Your task to perform on an android device: turn off location history Image 0: 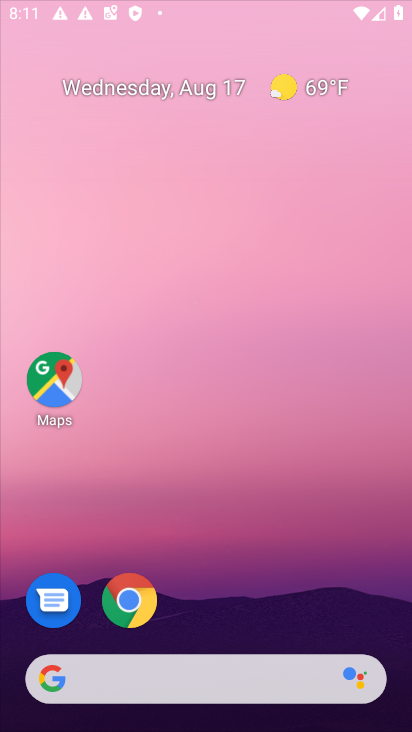
Step 0: press home button
Your task to perform on an android device: turn off location history Image 1: 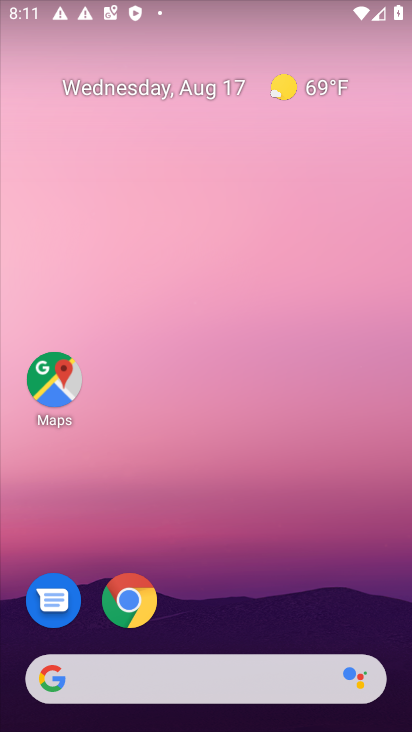
Step 1: drag from (216, 605) to (188, 95)
Your task to perform on an android device: turn off location history Image 2: 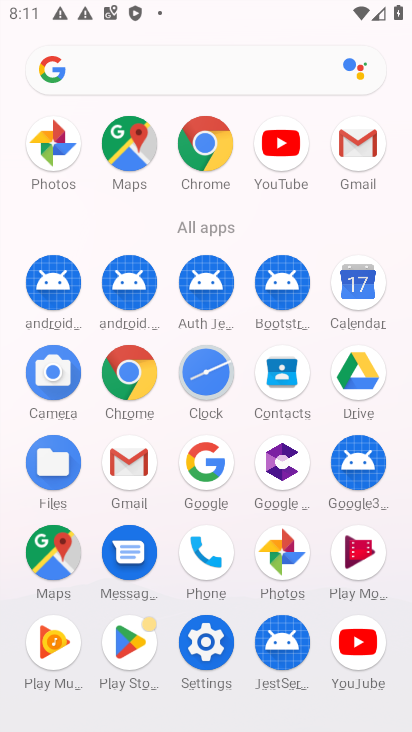
Step 2: click (204, 651)
Your task to perform on an android device: turn off location history Image 3: 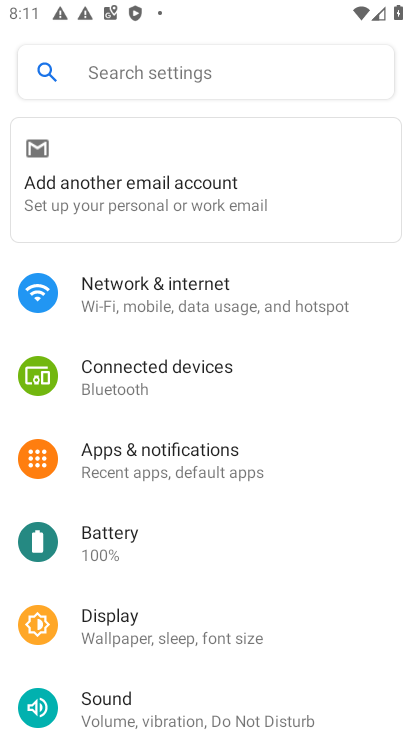
Step 3: drag from (149, 593) to (143, 321)
Your task to perform on an android device: turn off location history Image 4: 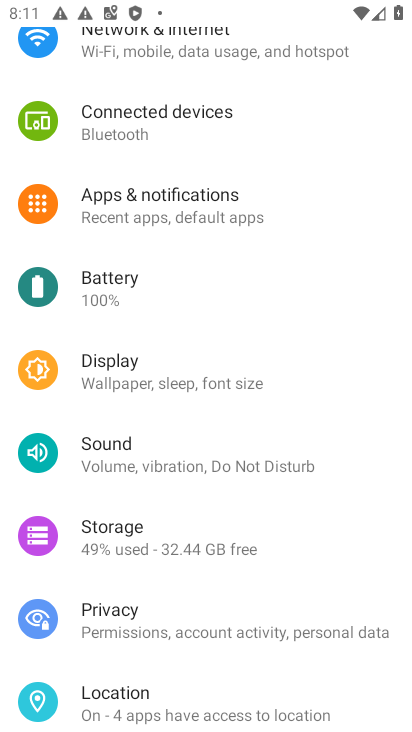
Step 4: click (126, 689)
Your task to perform on an android device: turn off location history Image 5: 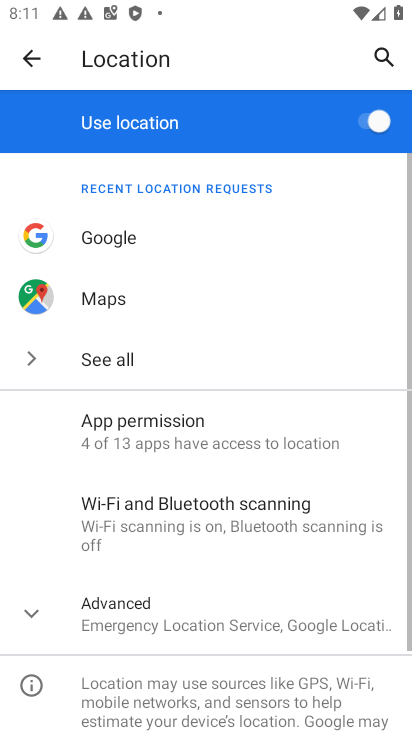
Step 5: click (385, 122)
Your task to perform on an android device: turn off location history Image 6: 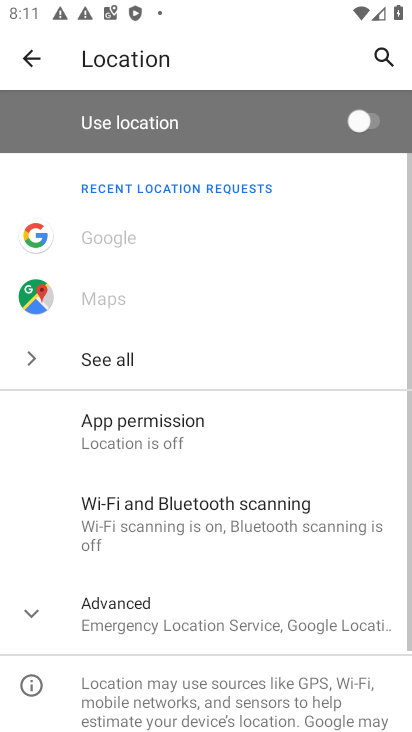
Step 6: task complete